Your task to perform on an android device: Go to Yahoo.com Image 0: 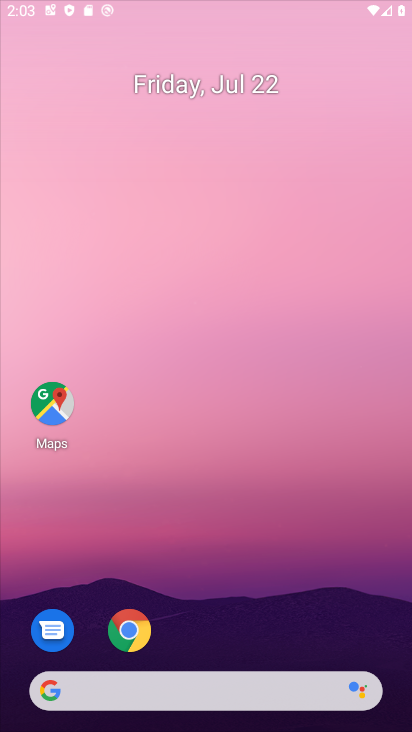
Step 0: drag from (191, 663) to (162, 68)
Your task to perform on an android device: Go to Yahoo.com Image 1: 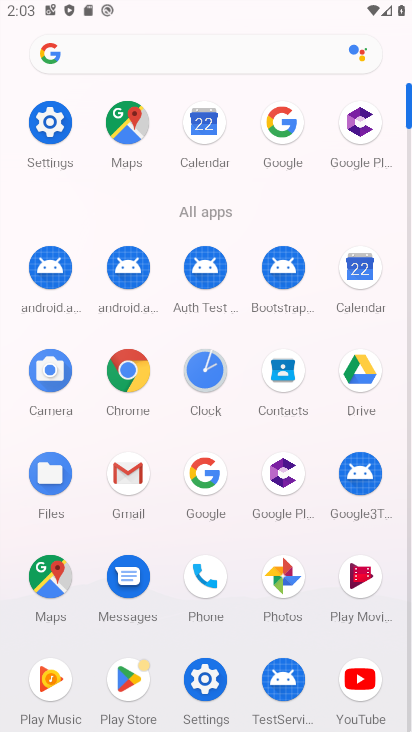
Step 1: click (212, 470)
Your task to perform on an android device: Go to Yahoo.com Image 2: 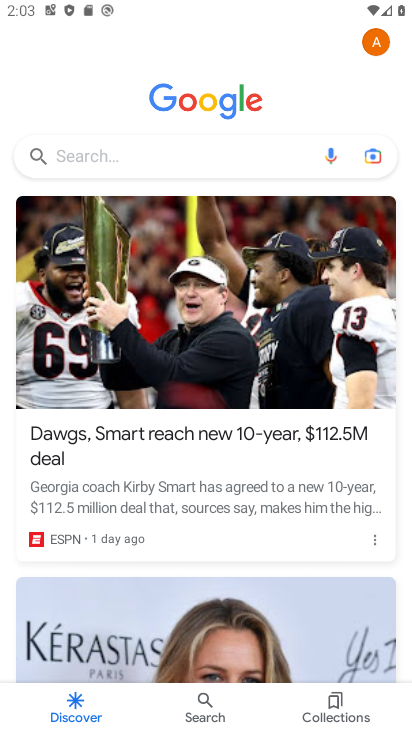
Step 2: press back button
Your task to perform on an android device: Go to Yahoo.com Image 3: 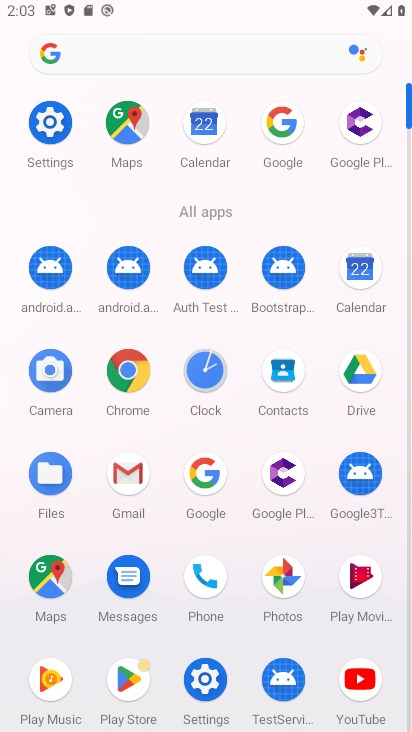
Step 3: click (123, 362)
Your task to perform on an android device: Go to Yahoo.com Image 4: 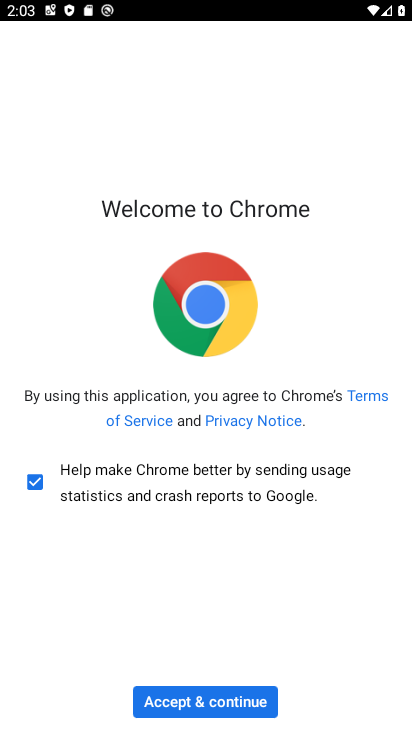
Step 4: click (163, 702)
Your task to perform on an android device: Go to Yahoo.com Image 5: 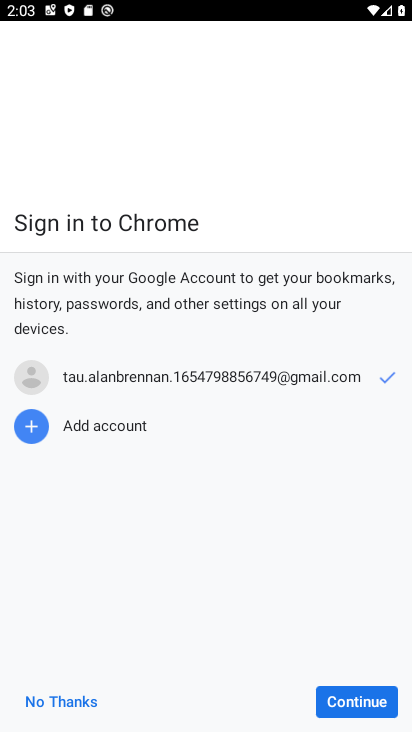
Step 5: click (387, 704)
Your task to perform on an android device: Go to Yahoo.com Image 6: 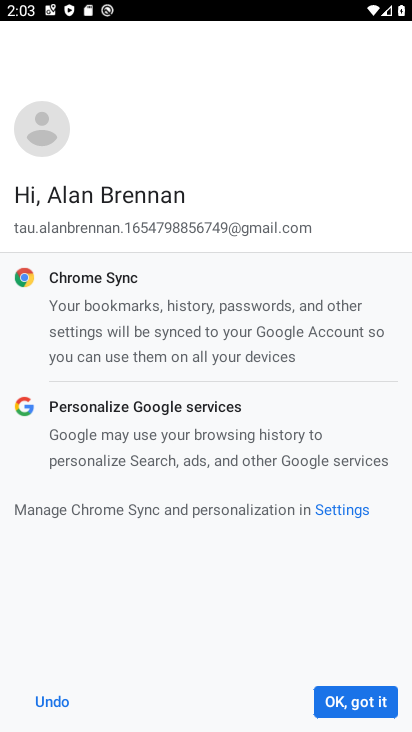
Step 6: click (358, 706)
Your task to perform on an android device: Go to Yahoo.com Image 7: 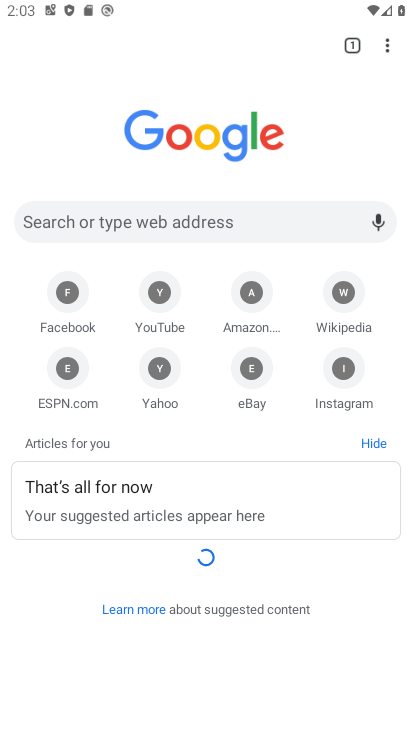
Step 7: click (157, 390)
Your task to perform on an android device: Go to Yahoo.com Image 8: 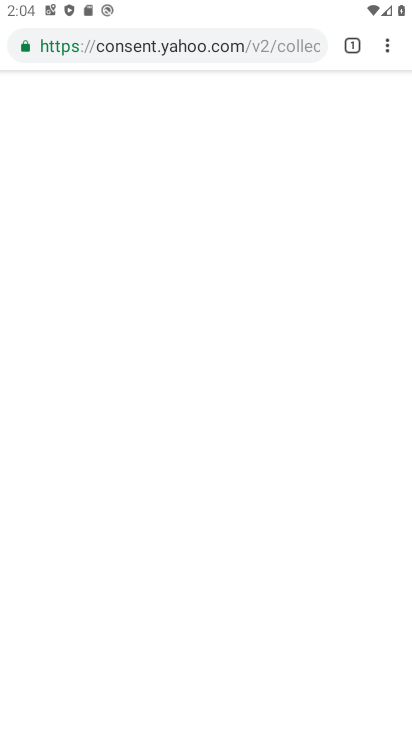
Step 8: click (149, 387)
Your task to perform on an android device: Go to Yahoo.com Image 9: 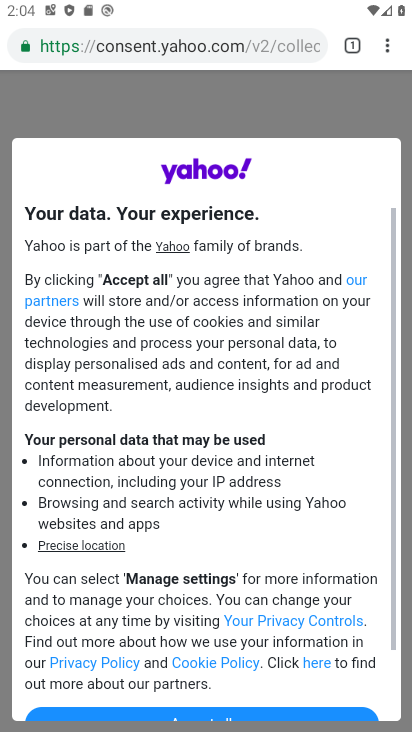
Step 9: task complete